Your task to perform on an android device: What's the weather today? Image 0: 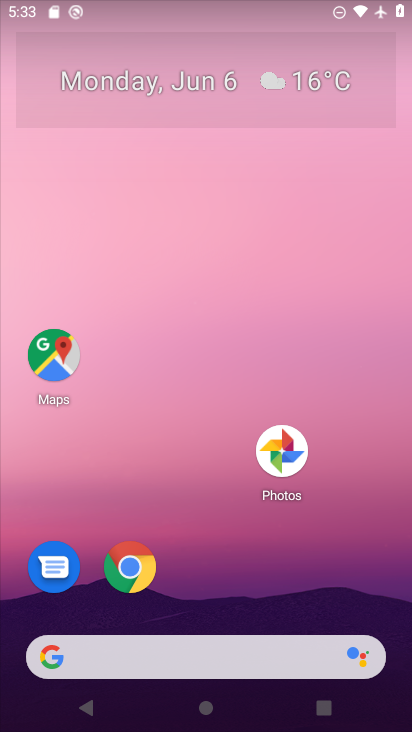
Step 0: press back button
Your task to perform on an android device: What's the weather today? Image 1: 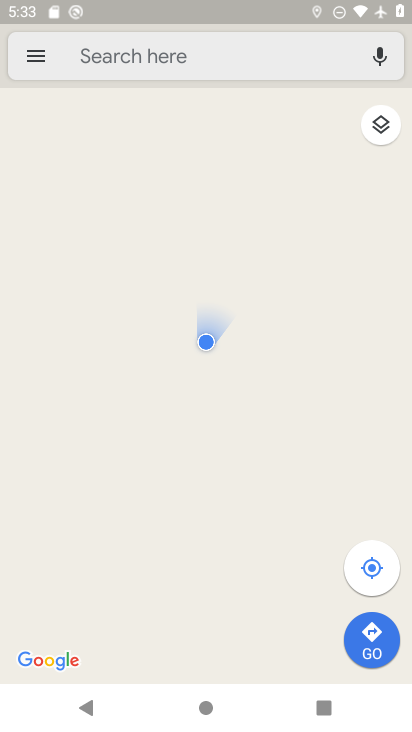
Step 1: drag from (286, 690) to (275, 56)
Your task to perform on an android device: What's the weather today? Image 2: 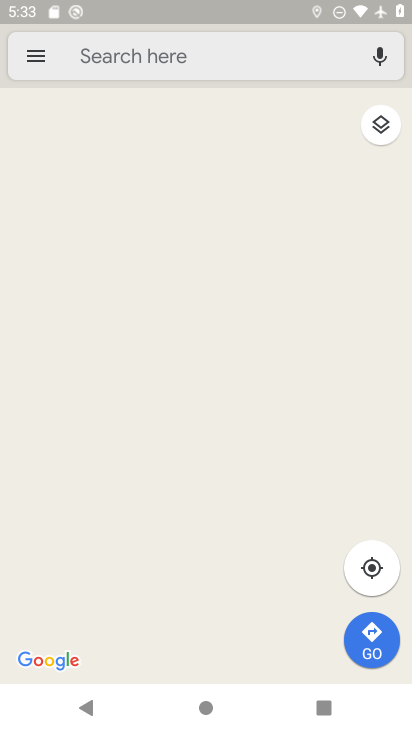
Step 2: press back button
Your task to perform on an android device: What's the weather today? Image 3: 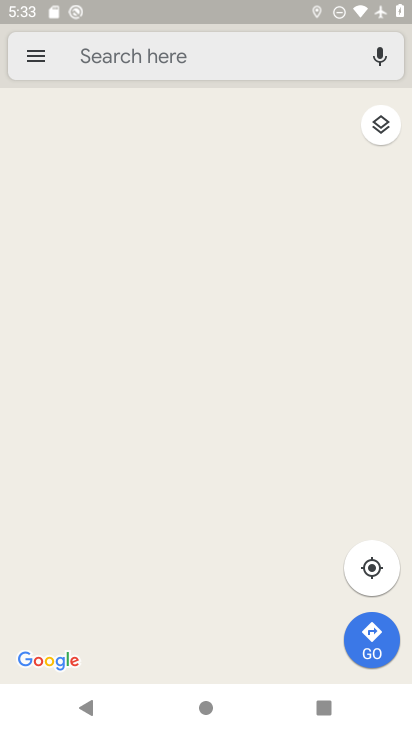
Step 3: press back button
Your task to perform on an android device: What's the weather today? Image 4: 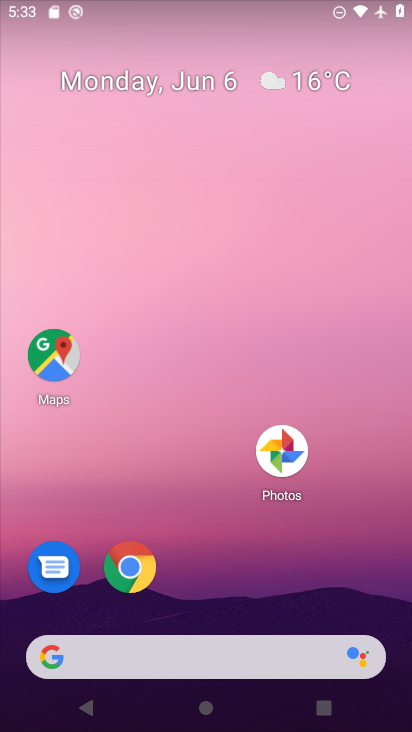
Step 4: press back button
Your task to perform on an android device: What's the weather today? Image 5: 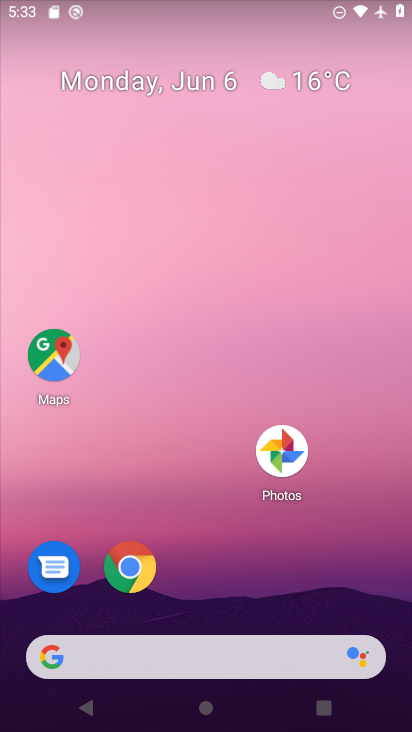
Step 5: drag from (17, 263) to (381, 402)
Your task to perform on an android device: What's the weather today? Image 6: 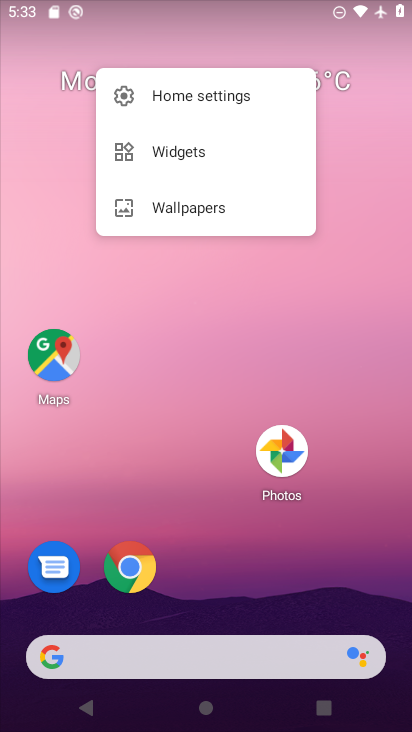
Step 6: drag from (136, 216) to (391, 388)
Your task to perform on an android device: What's the weather today? Image 7: 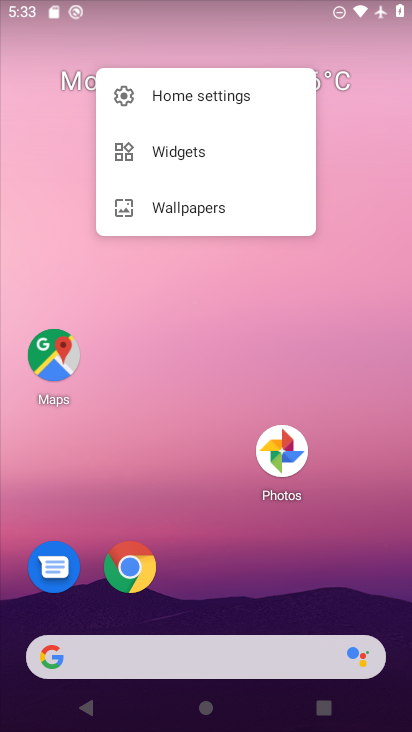
Step 7: click (163, 239)
Your task to perform on an android device: What's the weather today? Image 8: 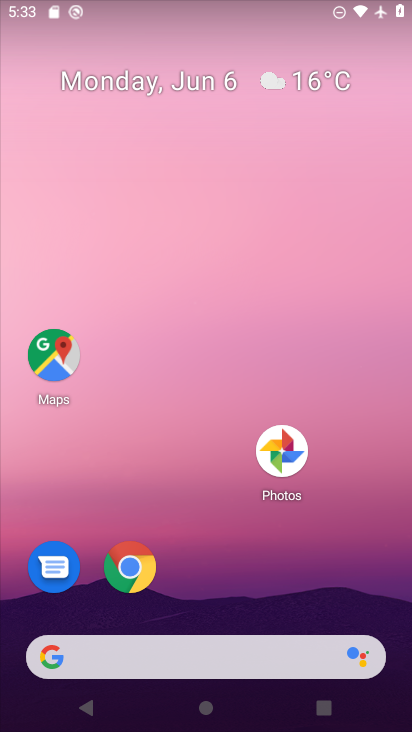
Step 8: click (172, 263)
Your task to perform on an android device: What's the weather today? Image 9: 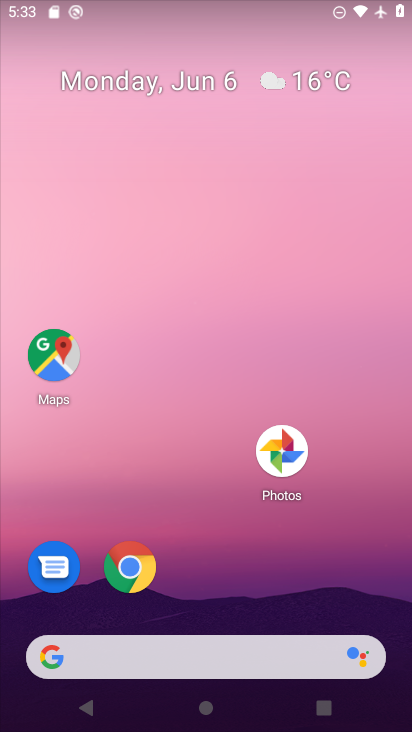
Step 9: click (259, 65)
Your task to perform on an android device: What's the weather today? Image 10: 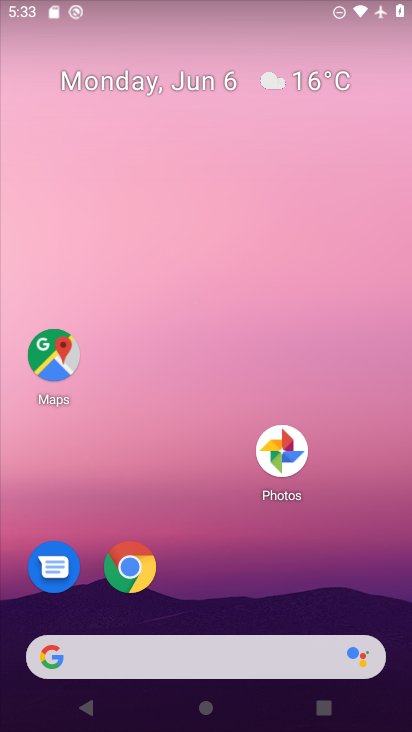
Step 10: click (274, 82)
Your task to perform on an android device: What's the weather today? Image 11: 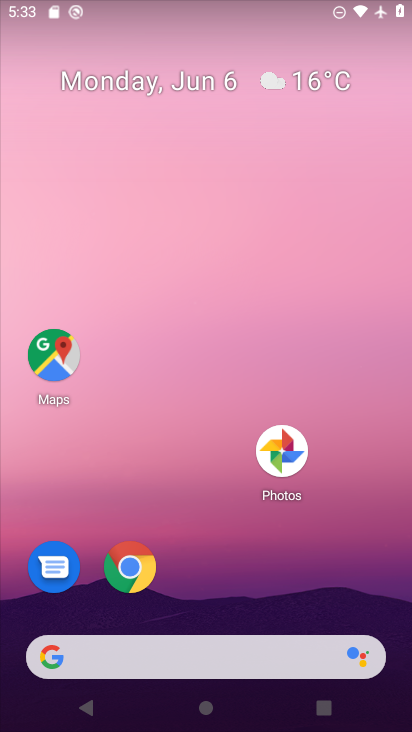
Step 11: click (314, 73)
Your task to perform on an android device: What's the weather today? Image 12: 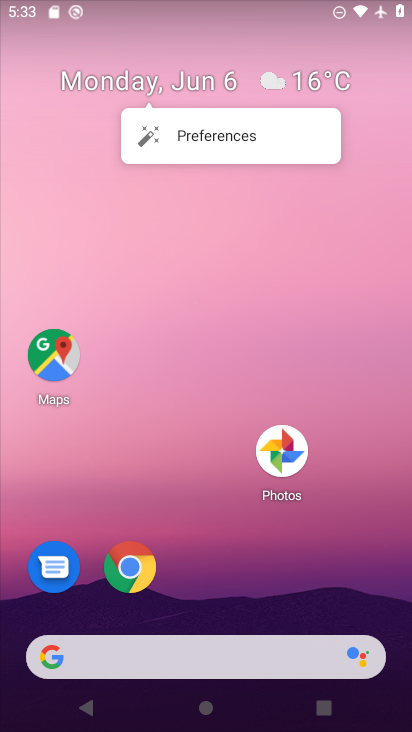
Step 12: task complete